Your task to perform on an android device: turn on data saver in the chrome app Image 0: 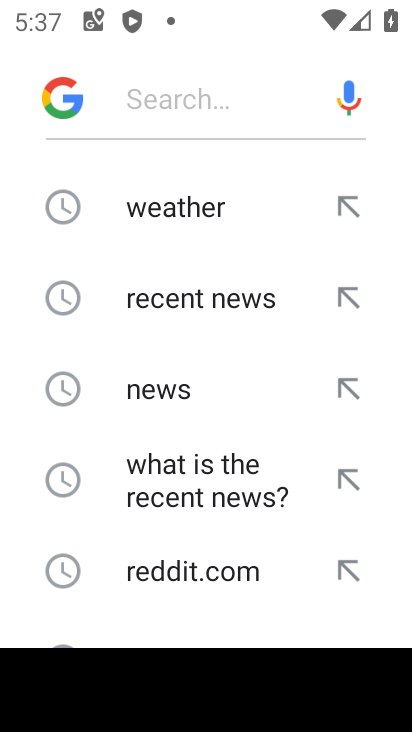
Step 0: press home button
Your task to perform on an android device: turn on data saver in the chrome app Image 1: 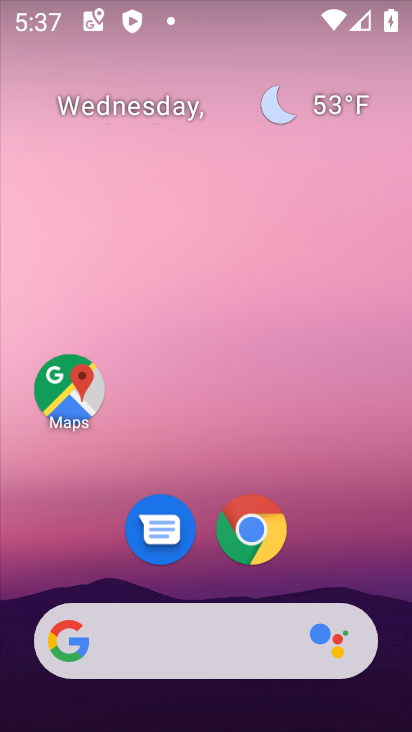
Step 1: drag from (309, 565) to (273, 286)
Your task to perform on an android device: turn on data saver in the chrome app Image 2: 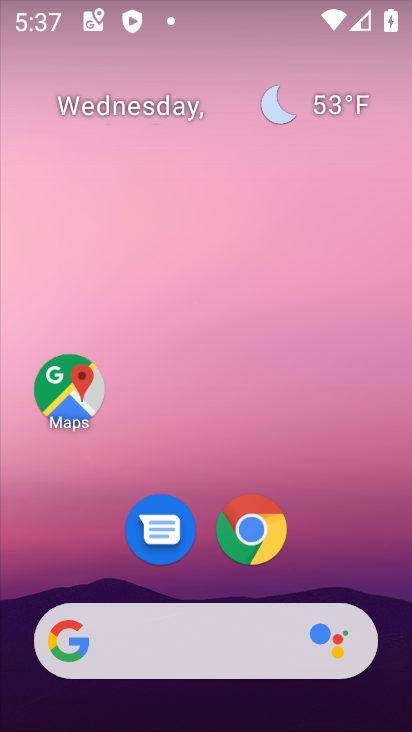
Step 2: drag from (296, 557) to (265, 176)
Your task to perform on an android device: turn on data saver in the chrome app Image 3: 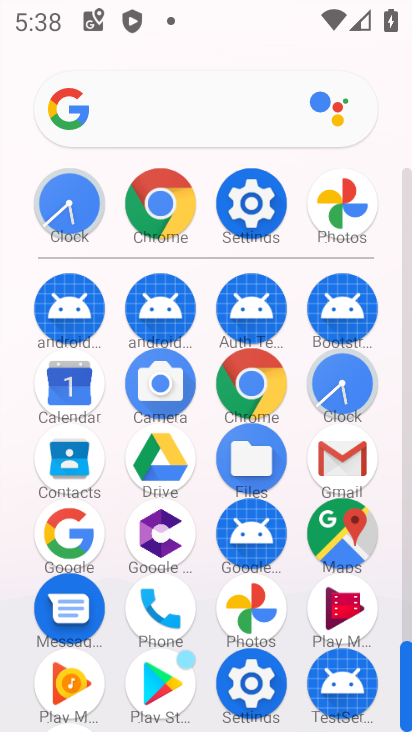
Step 3: click (165, 209)
Your task to perform on an android device: turn on data saver in the chrome app Image 4: 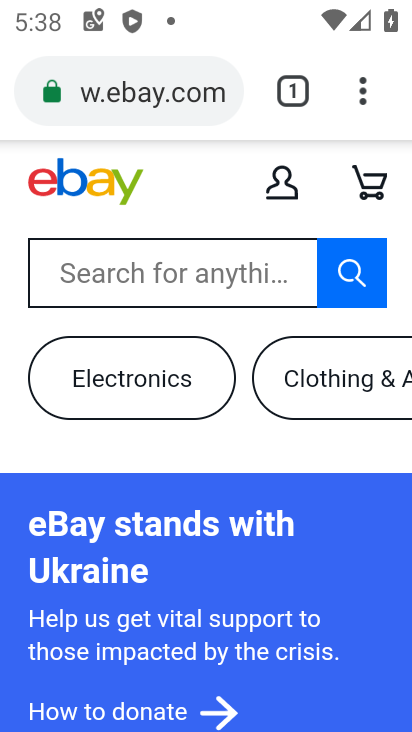
Step 4: click (362, 99)
Your task to perform on an android device: turn on data saver in the chrome app Image 5: 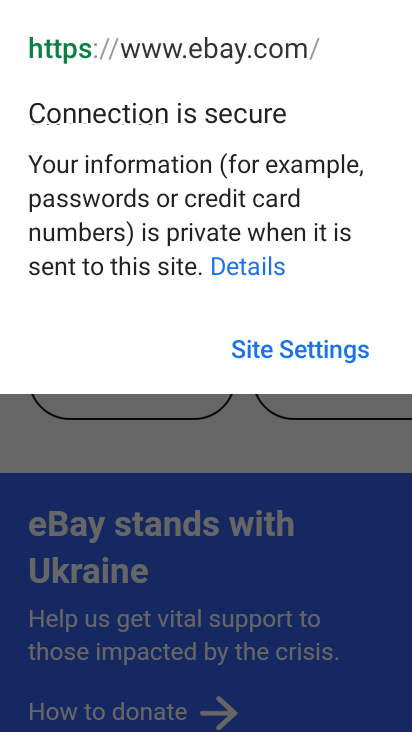
Step 5: click (240, 437)
Your task to perform on an android device: turn on data saver in the chrome app Image 6: 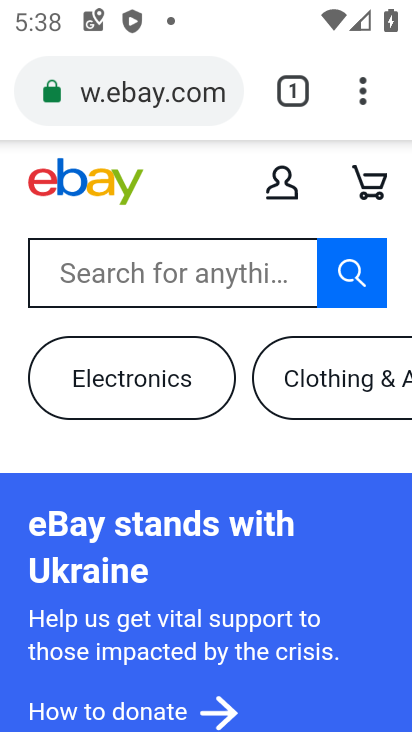
Step 6: click (363, 99)
Your task to perform on an android device: turn on data saver in the chrome app Image 7: 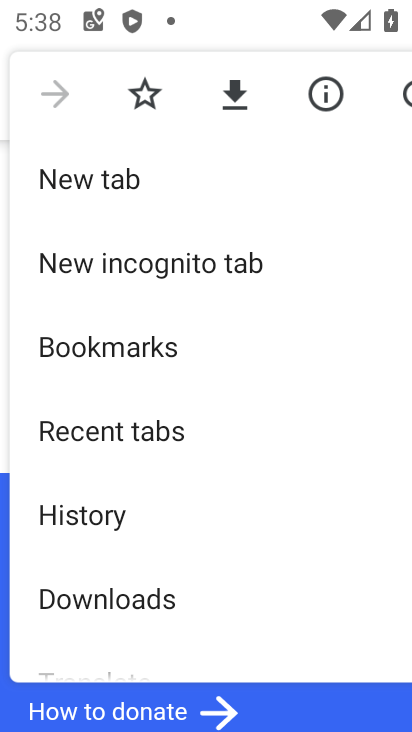
Step 7: drag from (195, 608) to (203, 364)
Your task to perform on an android device: turn on data saver in the chrome app Image 8: 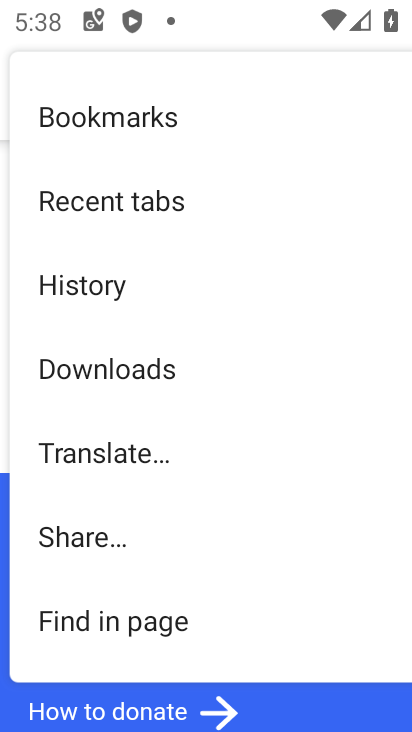
Step 8: drag from (155, 596) to (186, 348)
Your task to perform on an android device: turn on data saver in the chrome app Image 9: 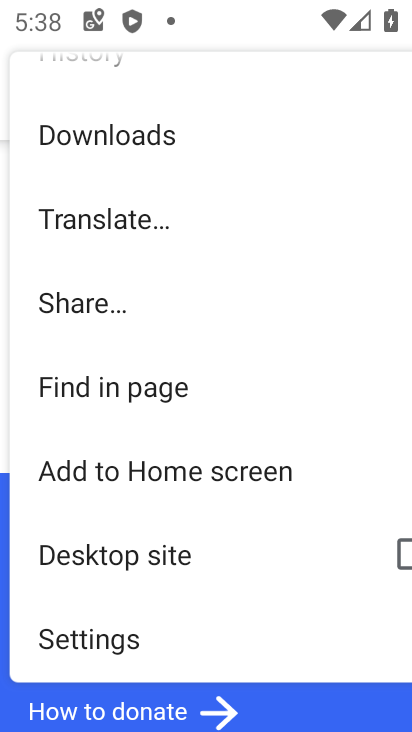
Step 9: click (95, 653)
Your task to perform on an android device: turn on data saver in the chrome app Image 10: 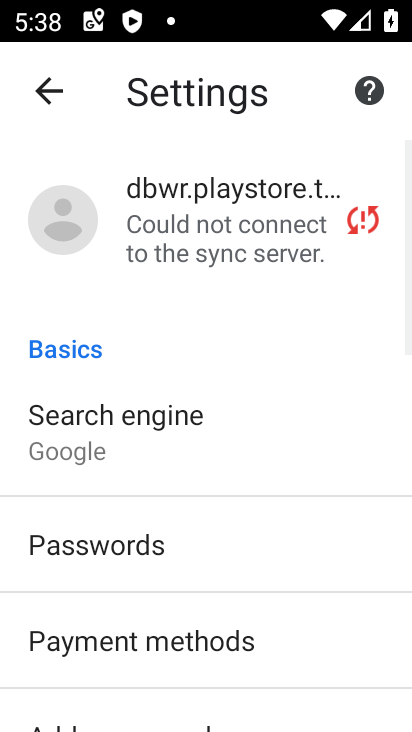
Step 10: drag from (202, 618) to (214, 361)
Your task to perform on an android device: turn on data saver in the chrome app Image 11: 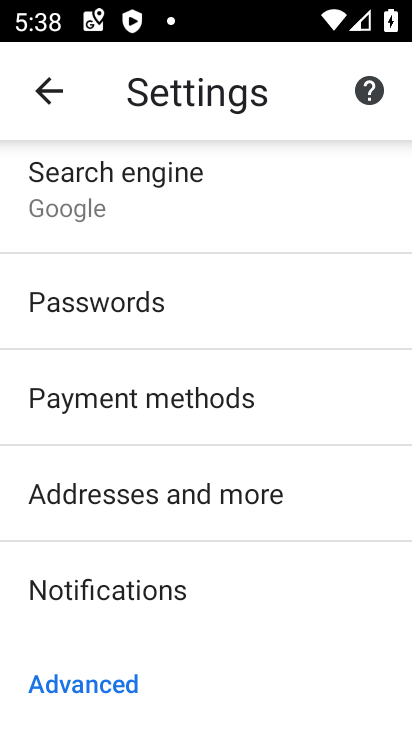
Step 11: drag from (208, 618) to (209, 273)
Your task to perform on an android device: turn on data saver in the chrome app Image 12: 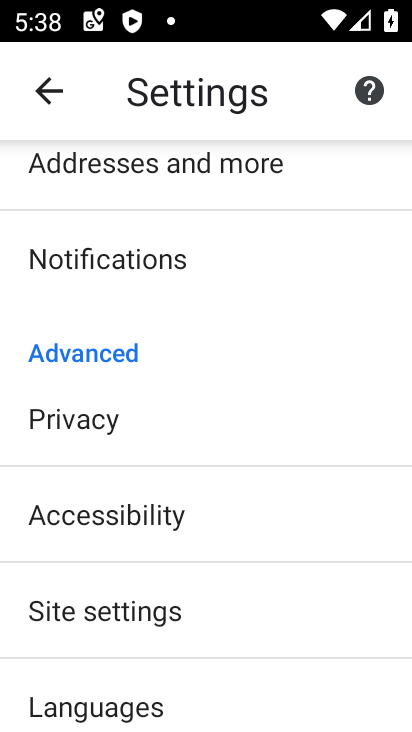
Step 12: drag from (169, 641) to (181, 378)
Your task to perform on an android device: turn on data saver in the chrome app Image 13: 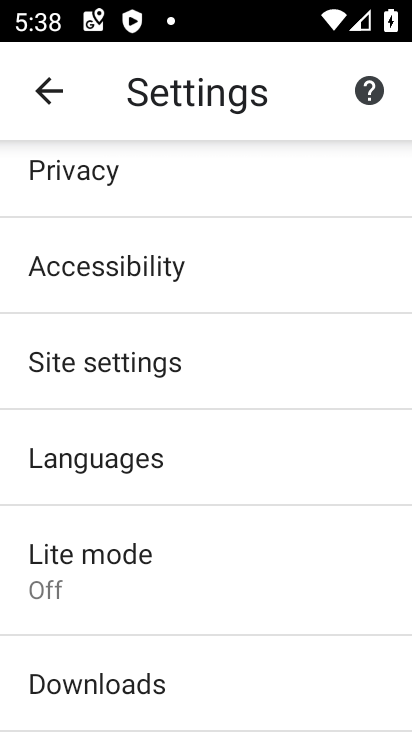
Step 13: click (115, 581)
Your task to perform on an android device: turn on data saver in the chrome app Image 14: 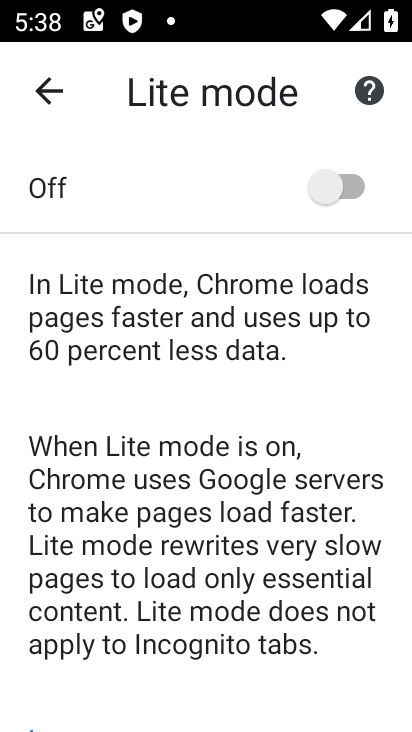
Step 14: click (355, 192)
Your task to perform on an android device: turn on data saver in the chrome app Image 15: 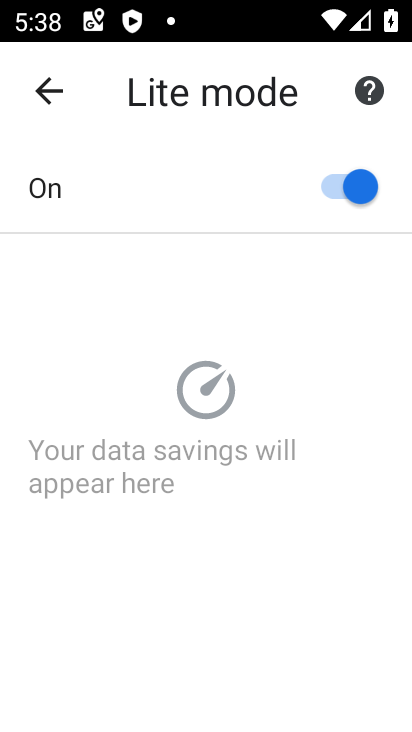
Step 15: task complete